Your task to perform on an android device: turn on sleep mode Image 0: 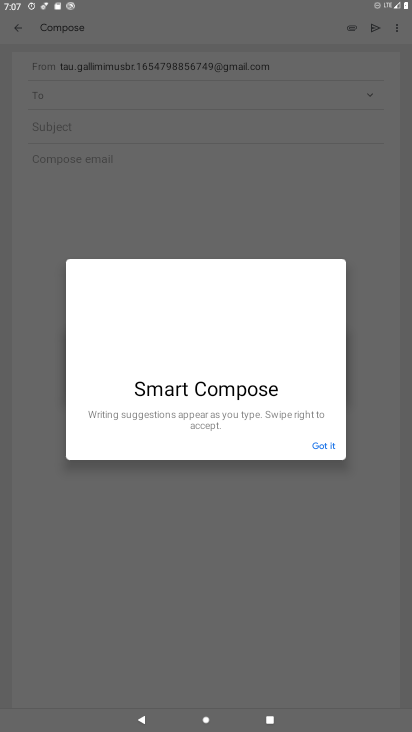
Step 0: press home button
Your task to perform on an android device: turn on sleep mode Image 1: 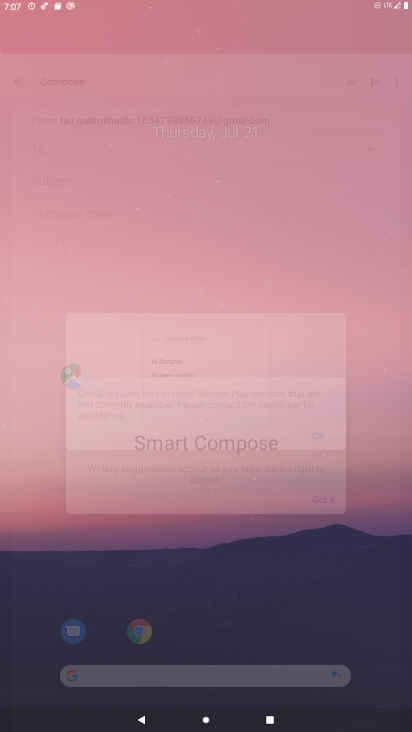
Step 1: drag from (362, 668) to (388, 75)
Your task to perform on an android device: turn on sleep mode Image 2: 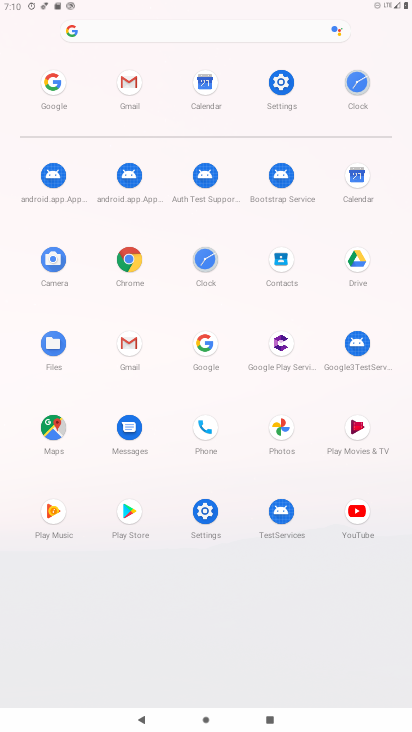
Step 2: click (209, 517)
Your task to perform on an android device: turn on sleep mode Image 3: 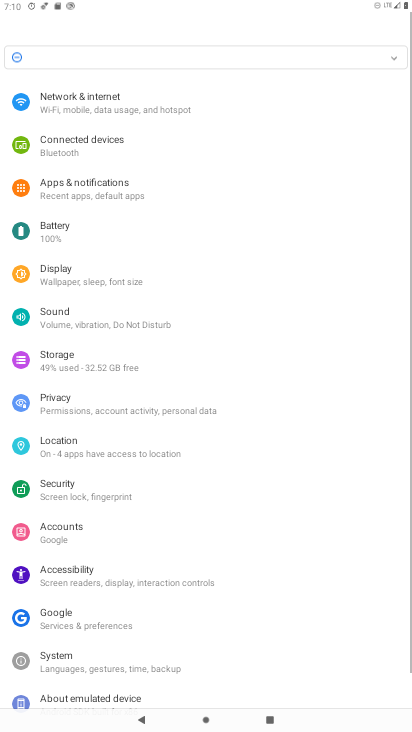
Step 3: task complete